Your task to perform on an android device: Open the Play Movies app and select the watchlist tab. Image 0: 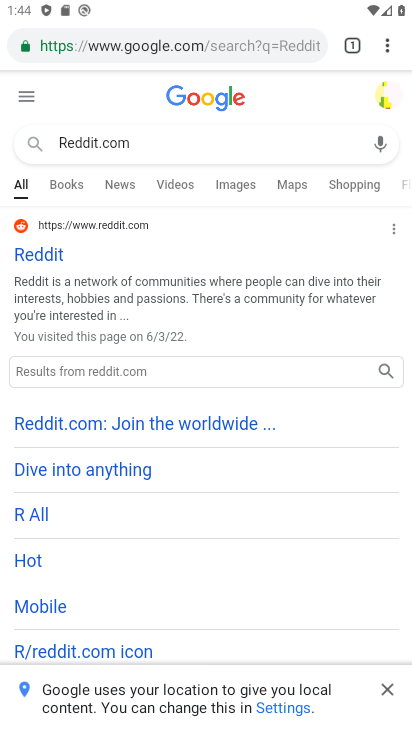
Step 0: press home button
Your task to perform on an android device: Open the Play Movies app and select the watchlist tab. Image 1: 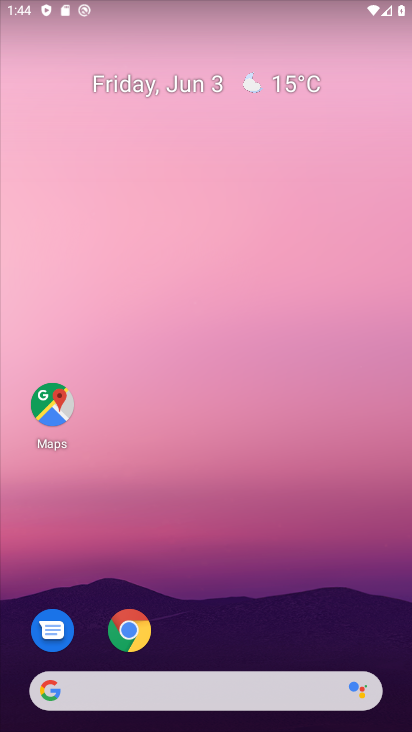
Step 1: drag from (394, 708) to (374, 187)
Your task to perform on an android device: Open the Play Movies app and select the watchlist tab. Image 2: 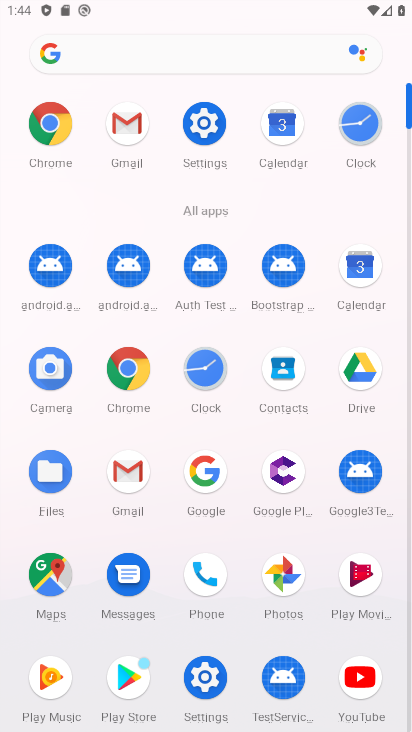
Step 2: click (350, 575)
Your task to perform on an android device: Open the Play Movies app and select the watchlist tab. Image 3: 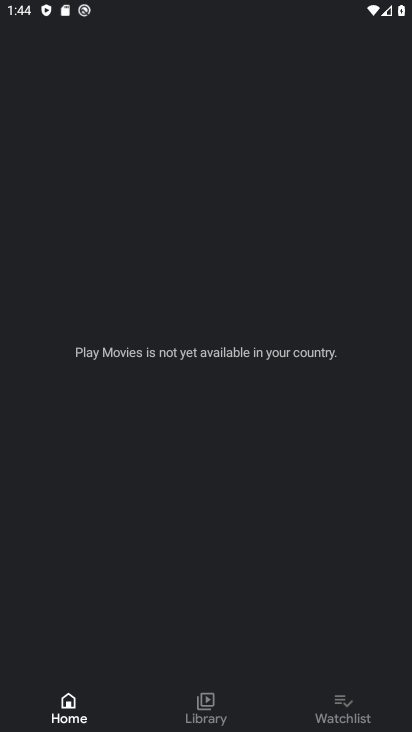
Step 3: click (341, 711)
Your task to perform on an android device: Open the Play Movies app and select the watchlist tab. Image 4: 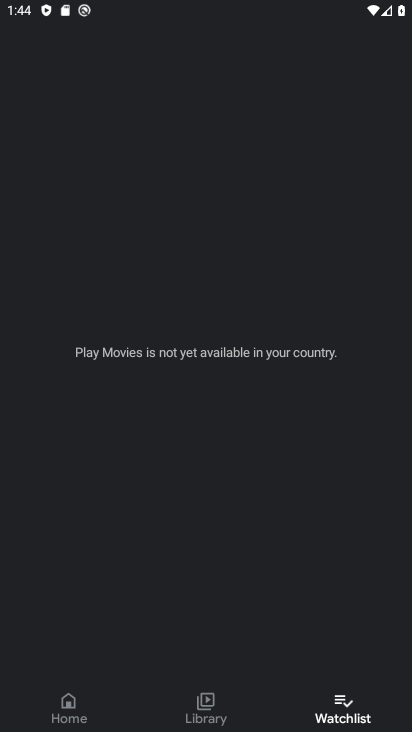
Step 4: task complete